Your task to perform on an android device: Go to Maps Image 0: 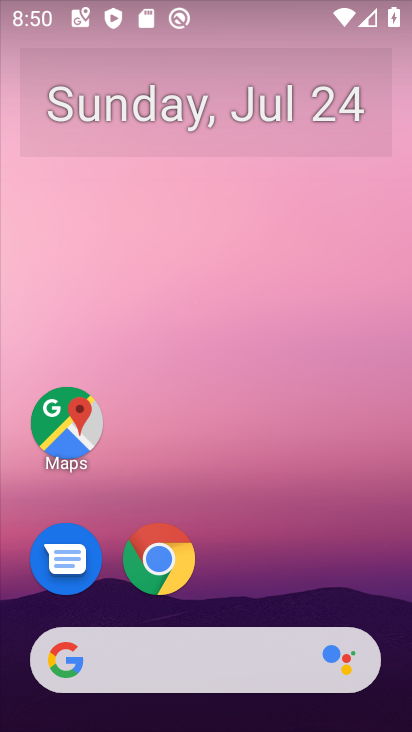
Step 0: click (74, 410)
Your task to perform on an android device: Go to Maps Image 1: 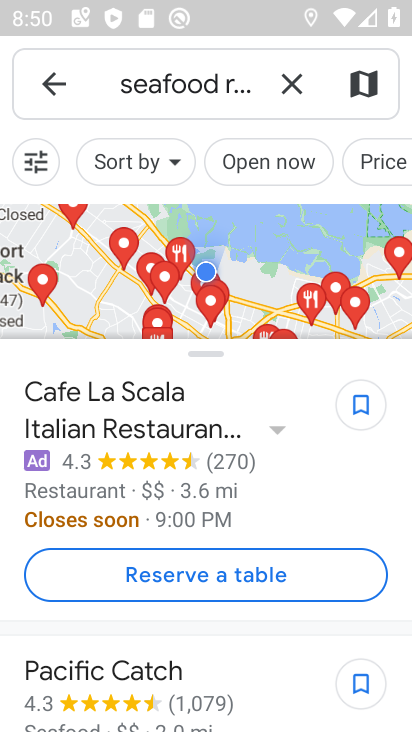
Step 1: task complete